Your task to perform on an android device: turn on priority inbox in the gmail app Image 0: 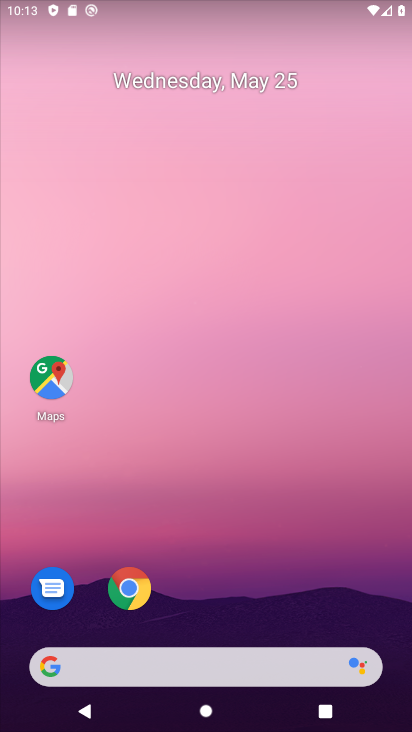
Step 0: click (271, 80)
Your task to perform on an android device: turn on priority inbox in the gmail app Image 1: 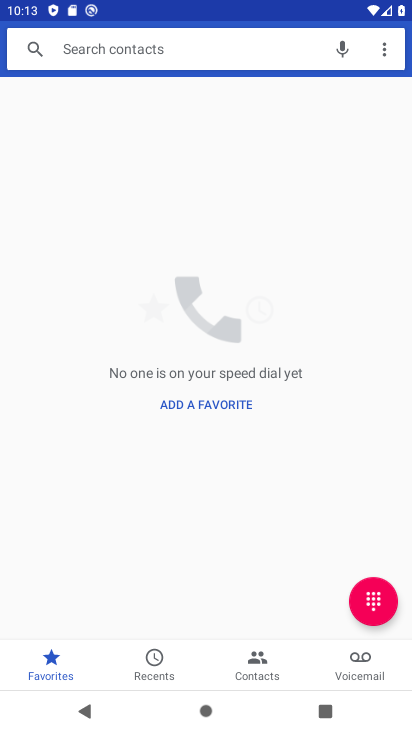
Step 1: press home button
Your task to perform on an android device: turn on priority inbox in the gmail app Image 2: 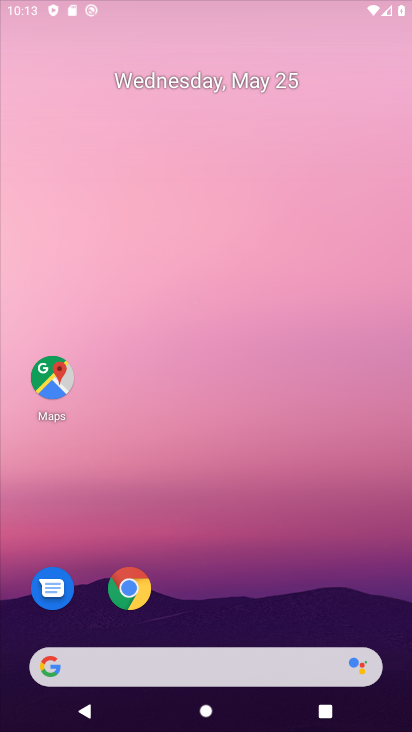
Step 2: drag from (329, 547) to (245, 123)
Your task to perform on an android device: turn on priority inbox in the gmail app Image 3: 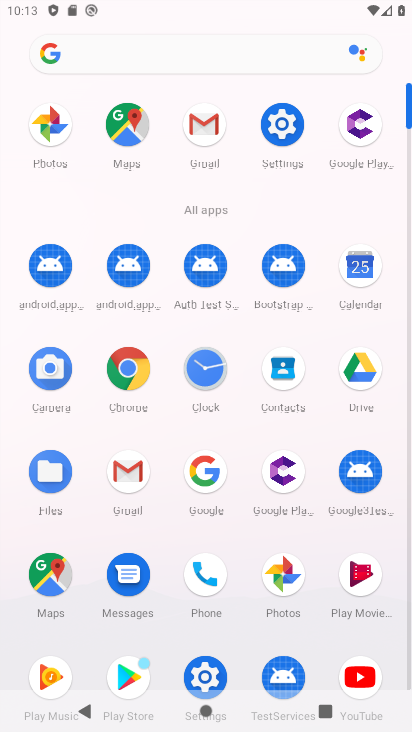
Step 3: click (215, 139)
Your task to perform on an android device: turn on priority inbox in the gmail app Image 4: 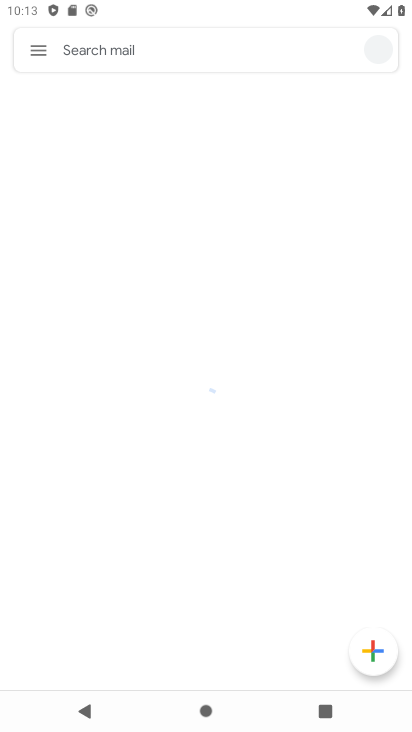
Step 4: click (33, 51)
Your task to perform on an android device: turn on priority inbox in the gmail app Image 5: 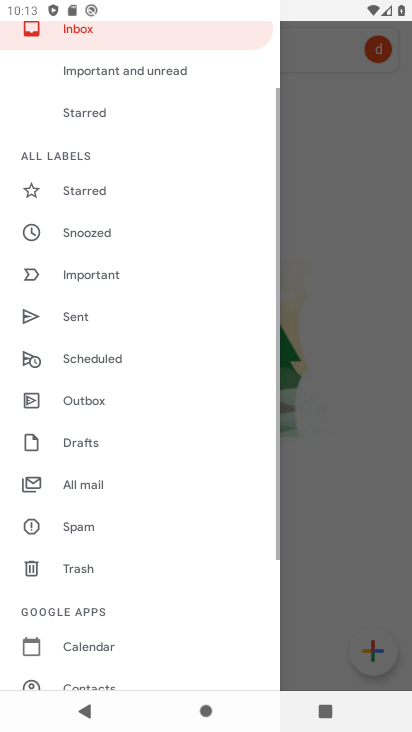
Step 5: drag from (157, 600) to (184, 318)
Your task to perform on an android device: turn on priority inbox in the gmail app Image 6: 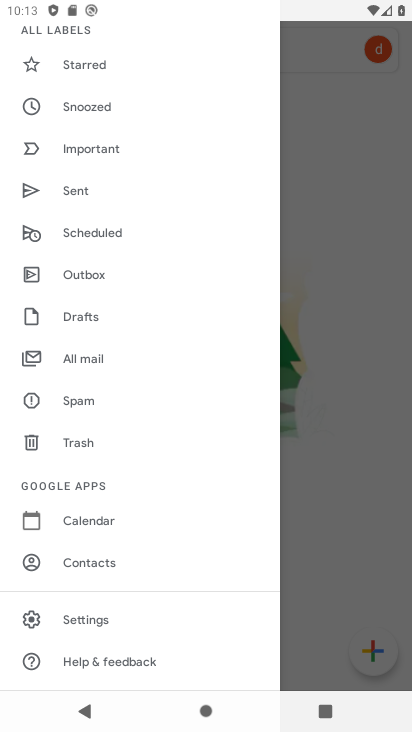
Step 6: click (102, 607)
Your task to perform on an android device: turn on priority inbox in the gmail app Image 7: 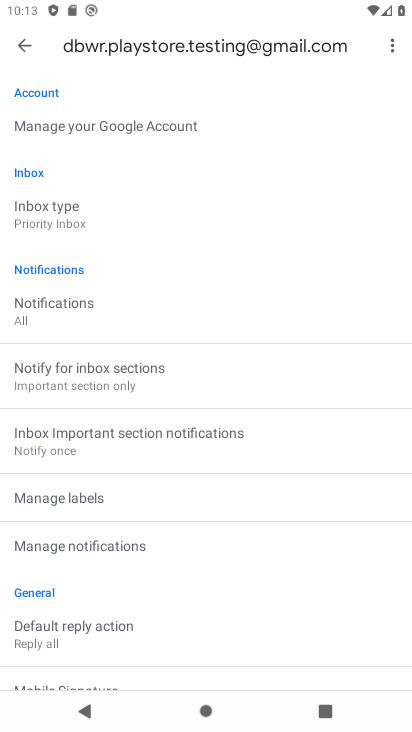
Step 7: click (66, 209)
Your task to perform on an android device: turn on priority inbox in the gmail app Image 8: 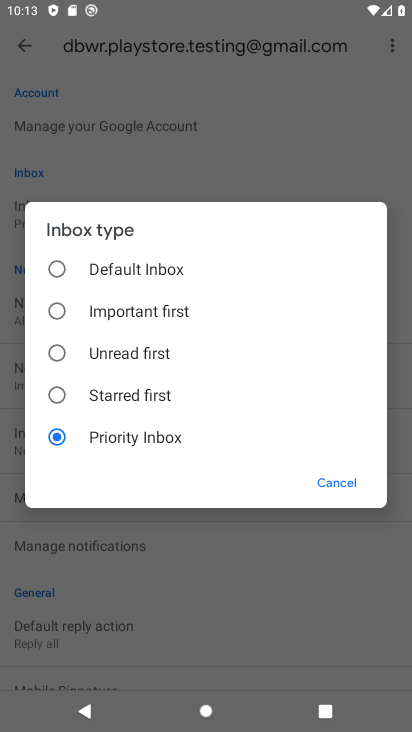
Step 8: task complete